Your task to perform on an android device: Open Google Maps Image 0: 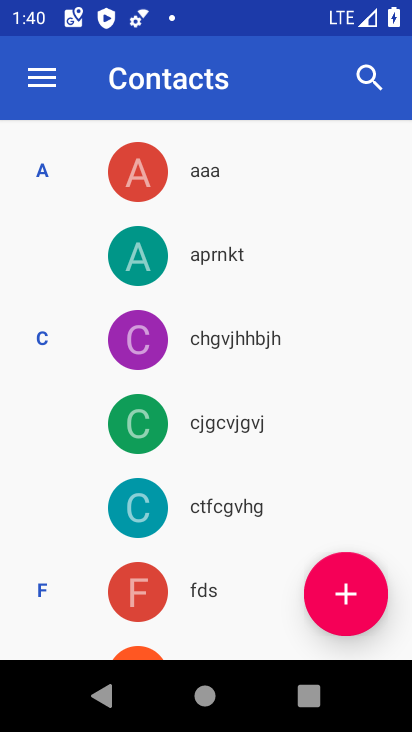
Step 0: press home button
Your task to perform on an android device: Open Google Maps Image 1: 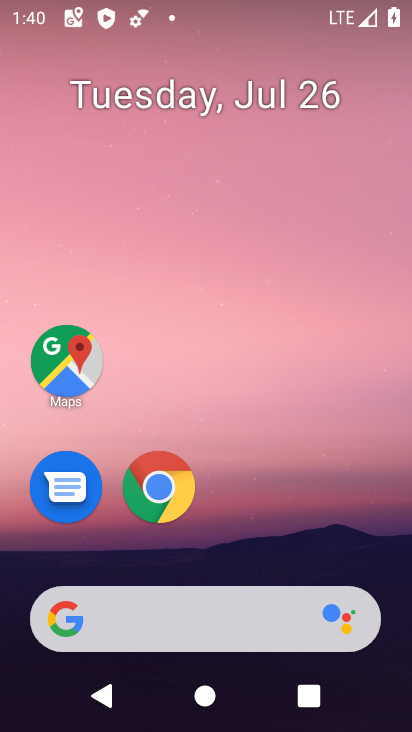
Step 1: drag from (239, 540) to (242, 197)
Your task to perform on an android device: Open Google Maps Image 2: 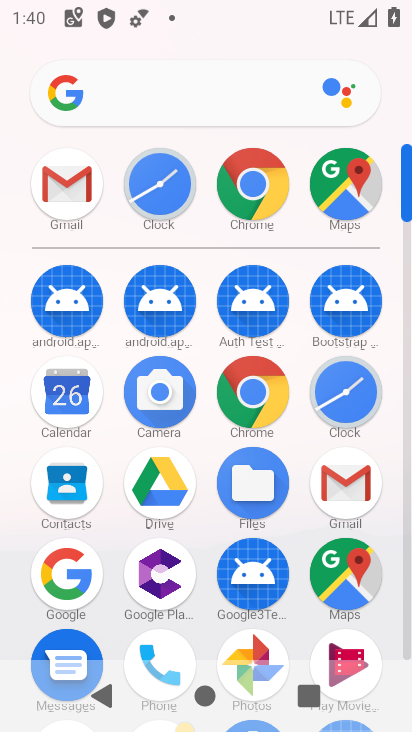
Step 2: click (360, 572)
Your task to perform on an android device: Open Google Maps Image 3: 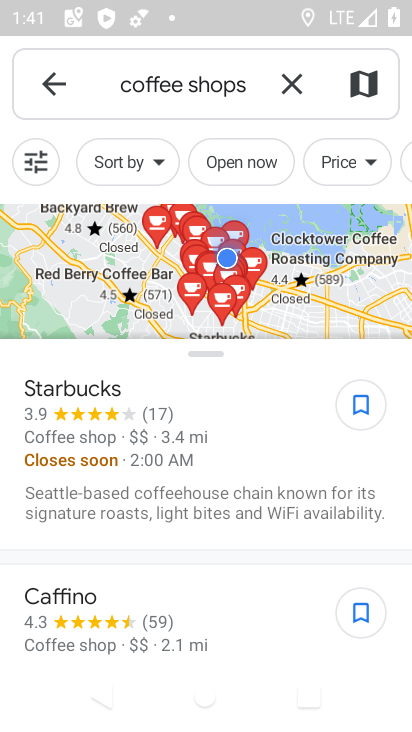
Step 3: task complete